Your task to perform on an android device: Search for logitech g910 on bestbuy.com, select the first entry, add it to the cart, then select checkout. Image 0: 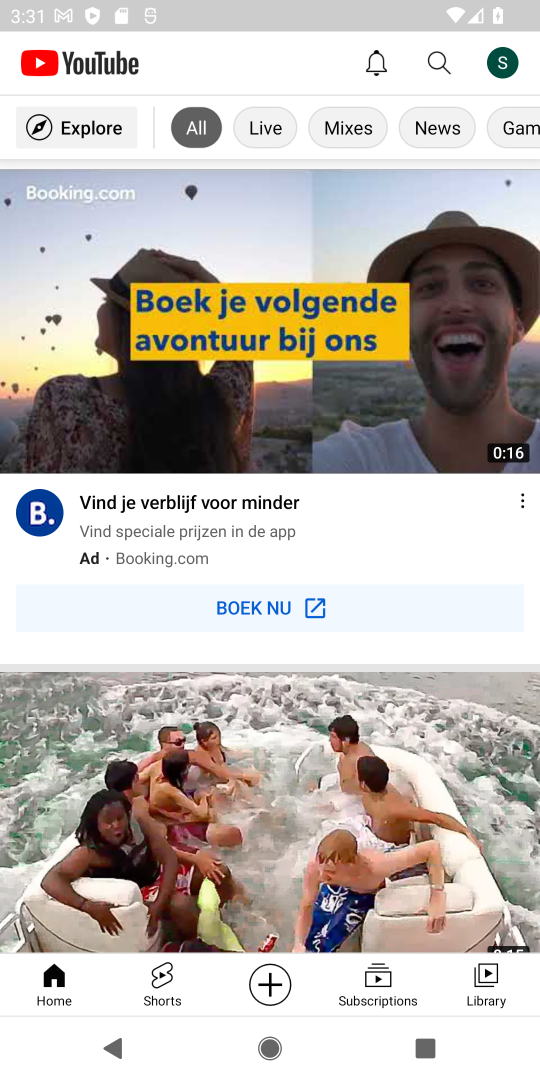
Step 0: press home button
Your task to perform on an android device: Search for logitech g910 on bestbuy.com, select the first entry, add it to the cart, then select checkout. Image 1: 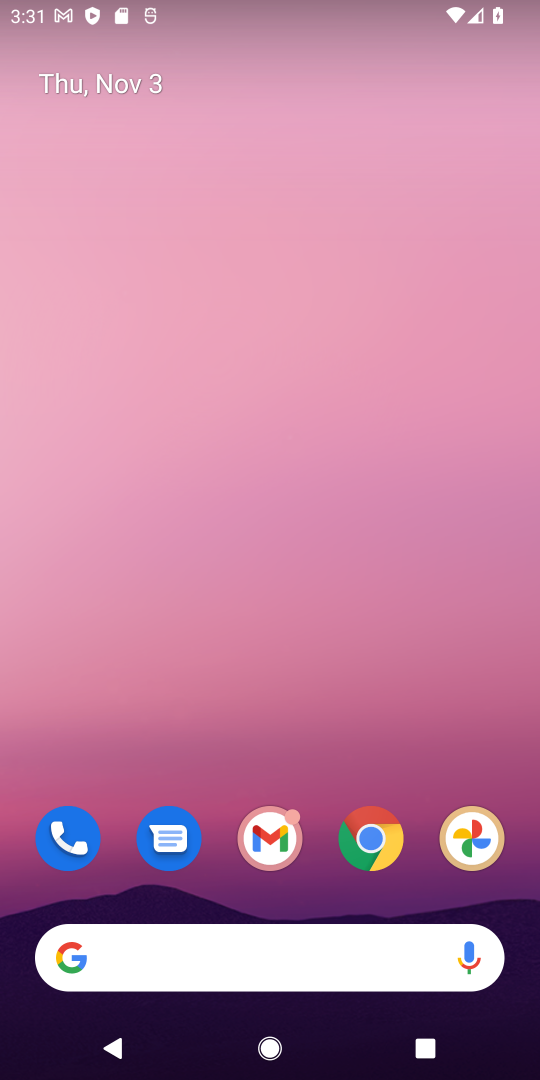
Step 1: drag from (316, 898) to (330, 72)
Your task to perform on an android device: Search for logitech g910 on bestbuy.com, select the first entry, add it to the cart, then select checkout. Image 2: 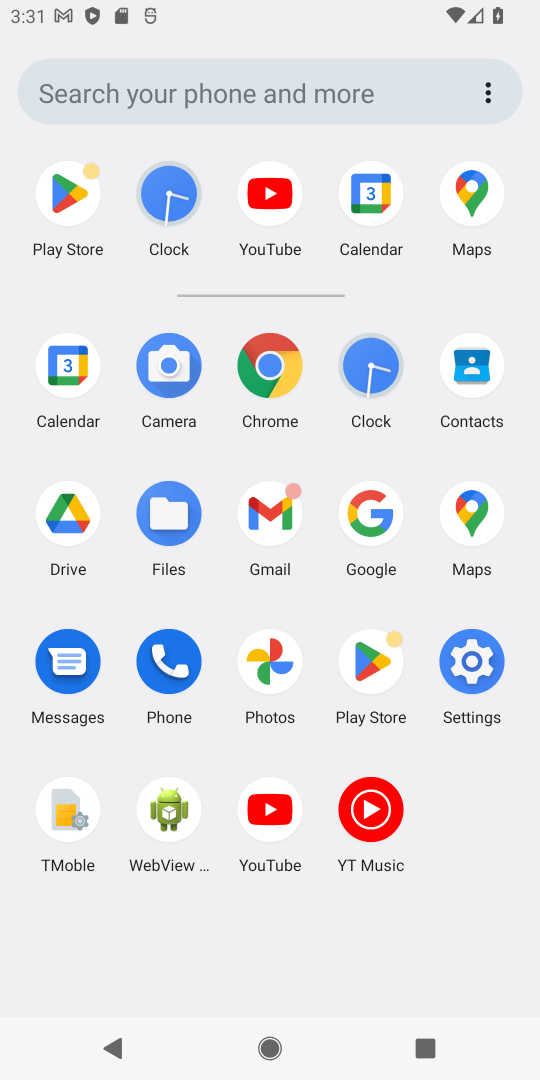
Step 2: click (278, 365)
Your task to perform on an android device: Search for logitech g910 on bestbuy.com, select the first entry, add it to the cart, then select checkout. Image 3: 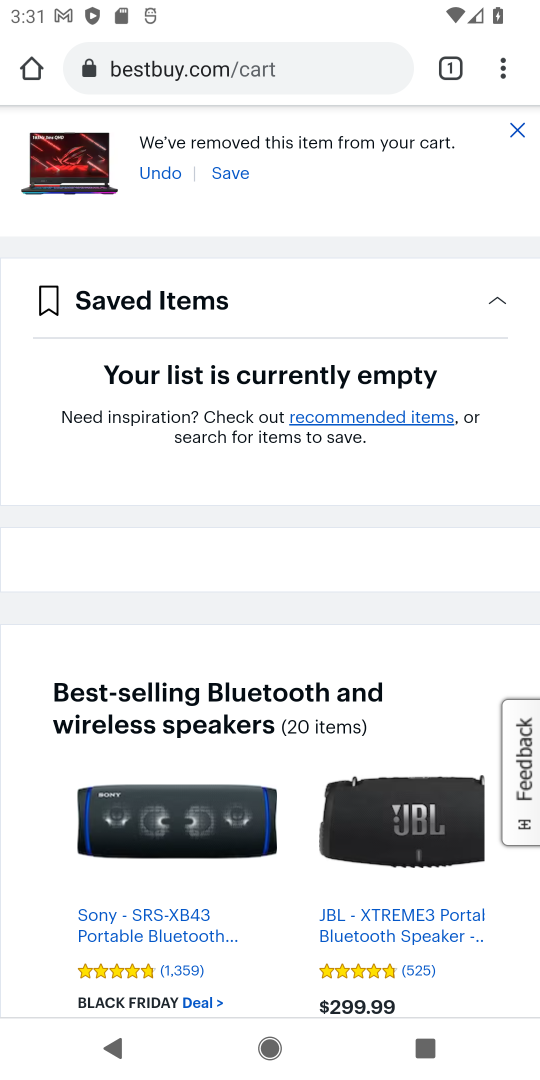
Step 3: click (327, 55)
Your task to perform on an android device: Search for logitech g910 on bestbuy.com, select the first entry, add it to the cart, then select checkout. Image 4: 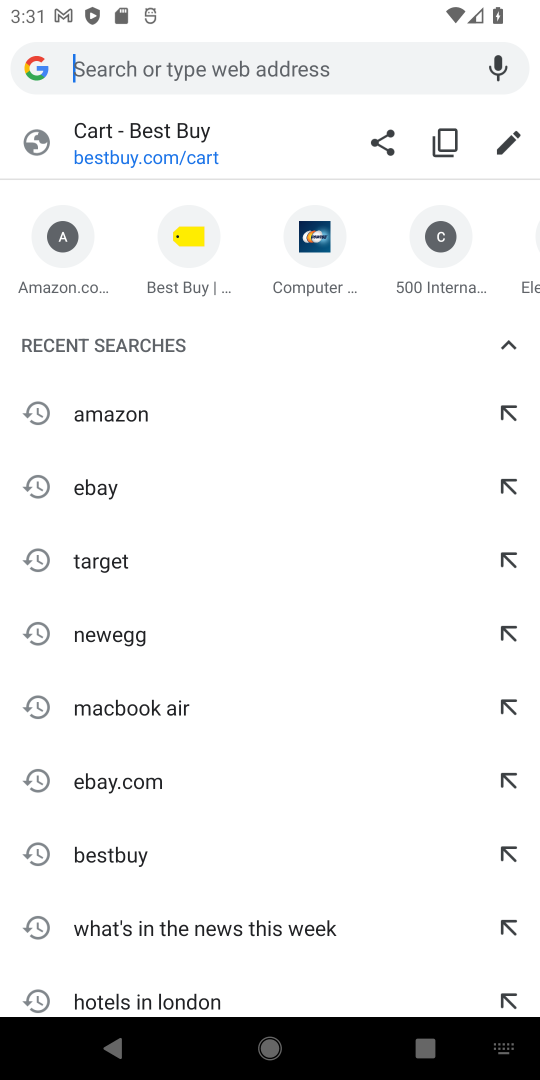
Step 4: type "bestbuy.com"
Your task to perform on an android device: Search for logitech g910 on bestbuy.com, select the first entry, add it to the cart, then select checkout. Image 5: 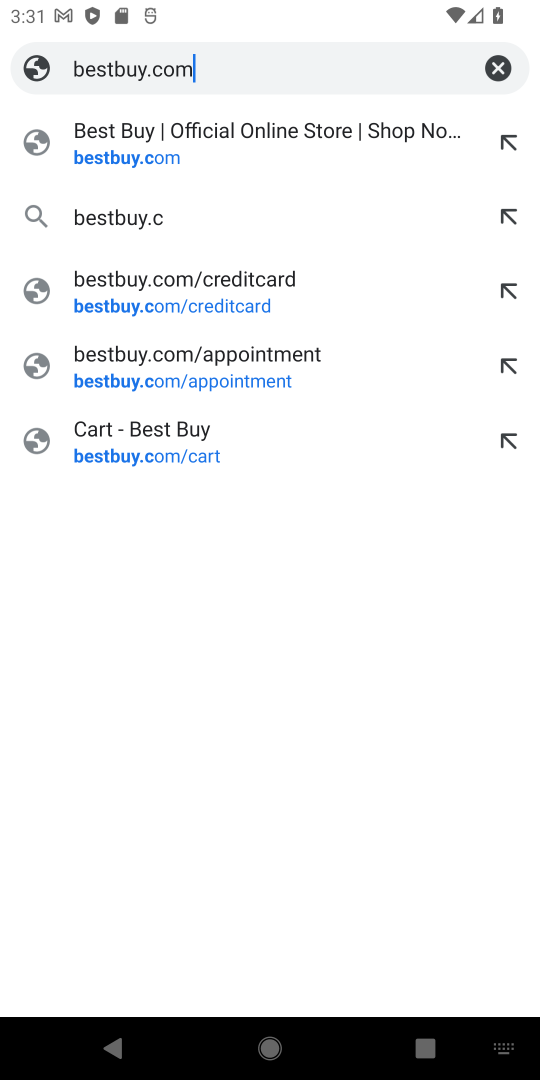
Step 5: press enter
Your task to perform on an android device: Search for logitech g910 on bestbuy.com, select the first entry, add it to the cart, then select checkout. Image 6: 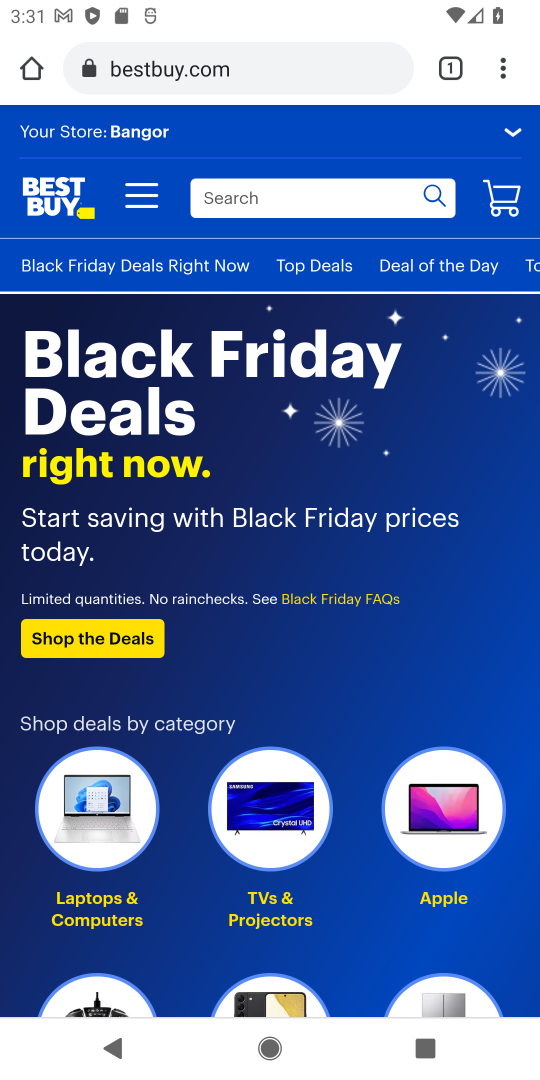
Step 6: click (341, 203)
Your task to perform on an android device: Search for logitech g910 on bestbuy.com, select the first entry, add it to the cart, then select checkout. Image 7: 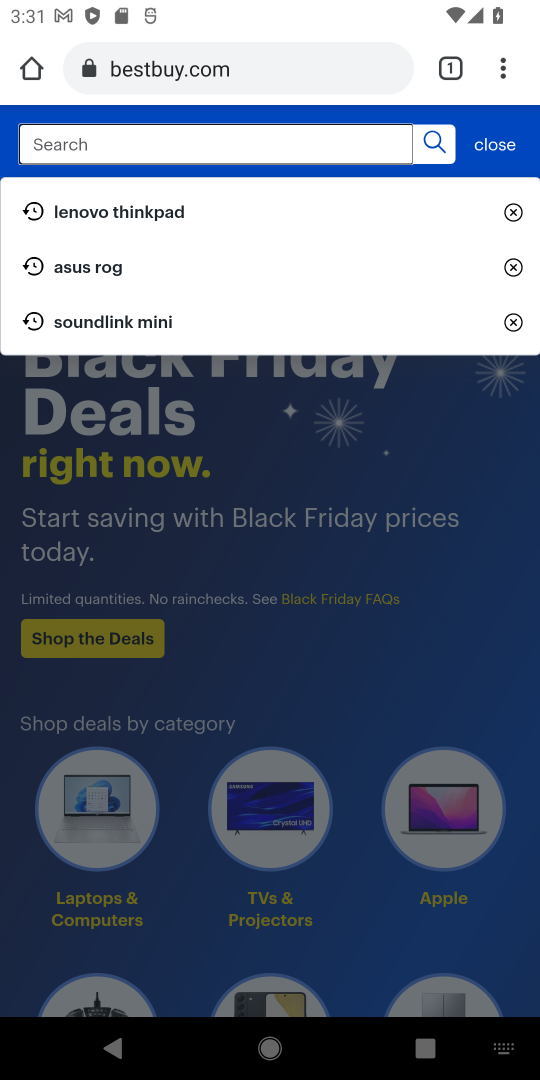
Step 7: type "logitech g910"
Your task to perform on an android device: Search for logitech g910 on bestbuy.com, select the first entry, add it to the cart, then select checkout. Image 8: 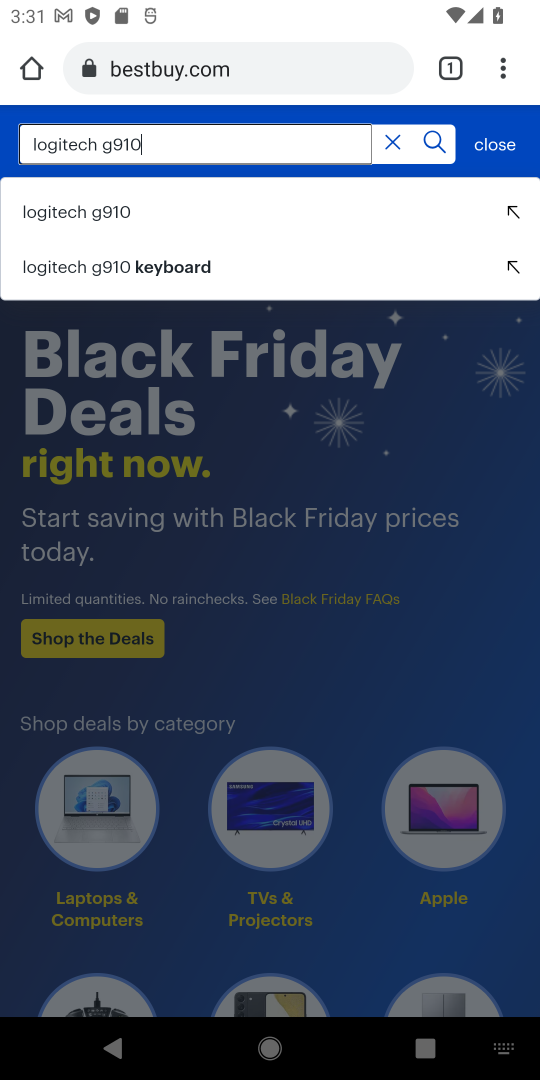
Step 8: press enter
Your task to perform on an android device: Search for logitech g910 on bestbuy.com, select the first entry, add it to the cart, then select checkout. Image 9: 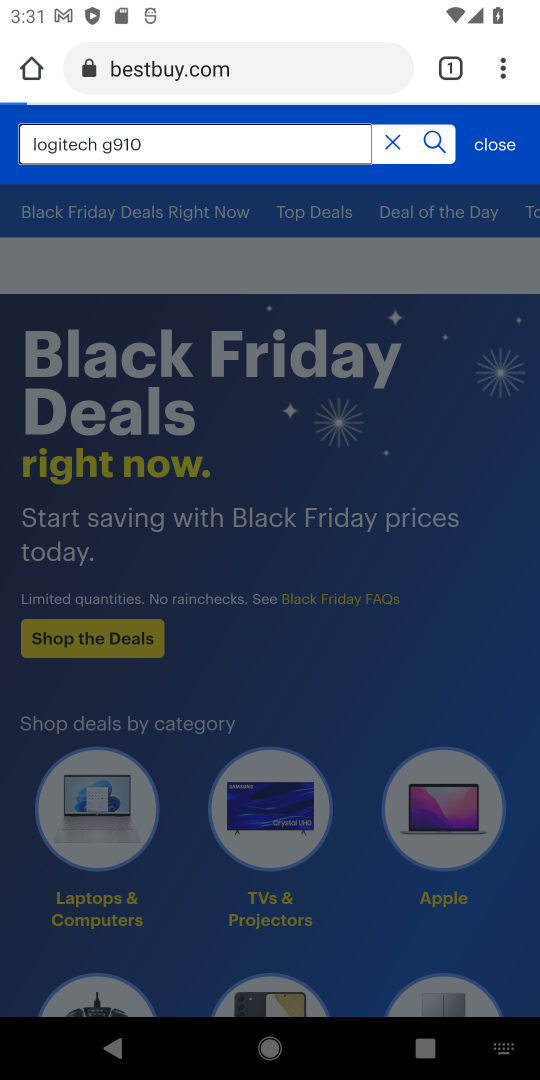
Step 9: press enter
Your task to perform on an android device: Search for logitech g910 on bestbuy.com, select the first entry, add it to the cart, then select checkout. Image 10: 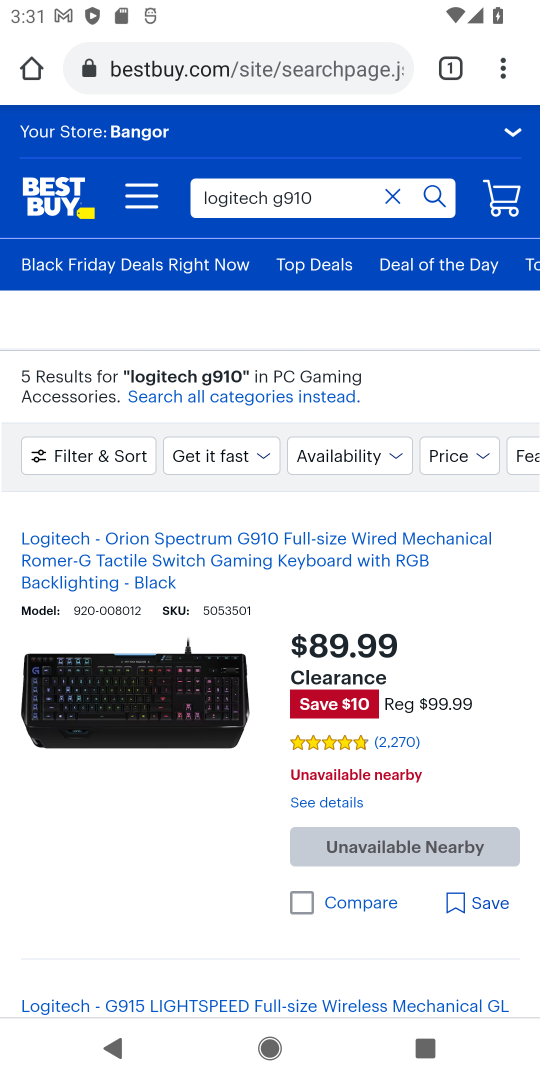
Step 10: drag from (344, 964) to (365, 611)
Your task to perform on an android device: Search for logitech g910 on bestbuy.com, select the first entry, add it to the cart, then select checkout. Image 11: 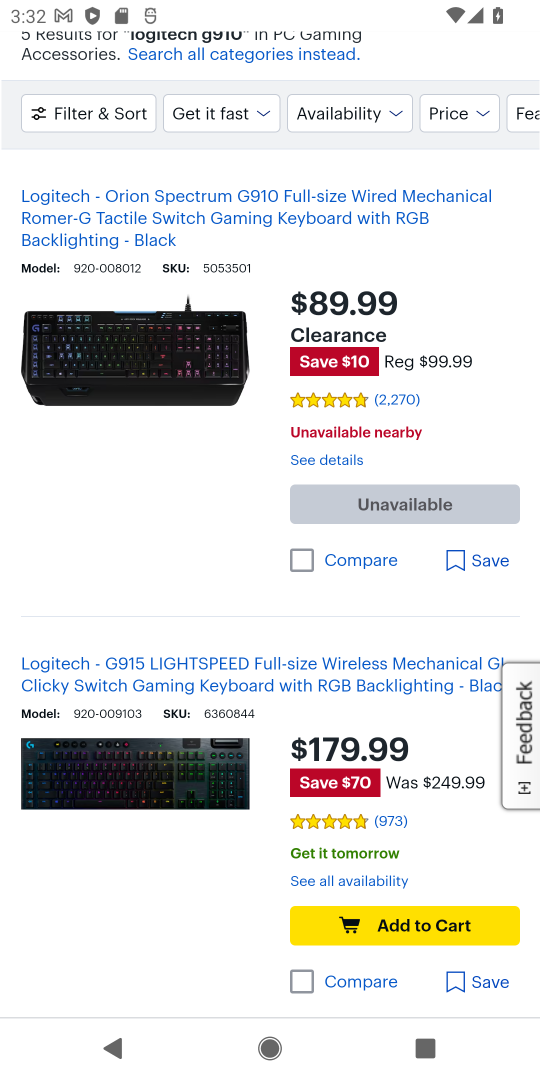
Step 11: drag from (134, 872) to (296, 355)
Your task to perform on an android device: Search for logitech g910 on bestbuy.com, select the first entry, add it to the cart, then select checkout. Image 12: 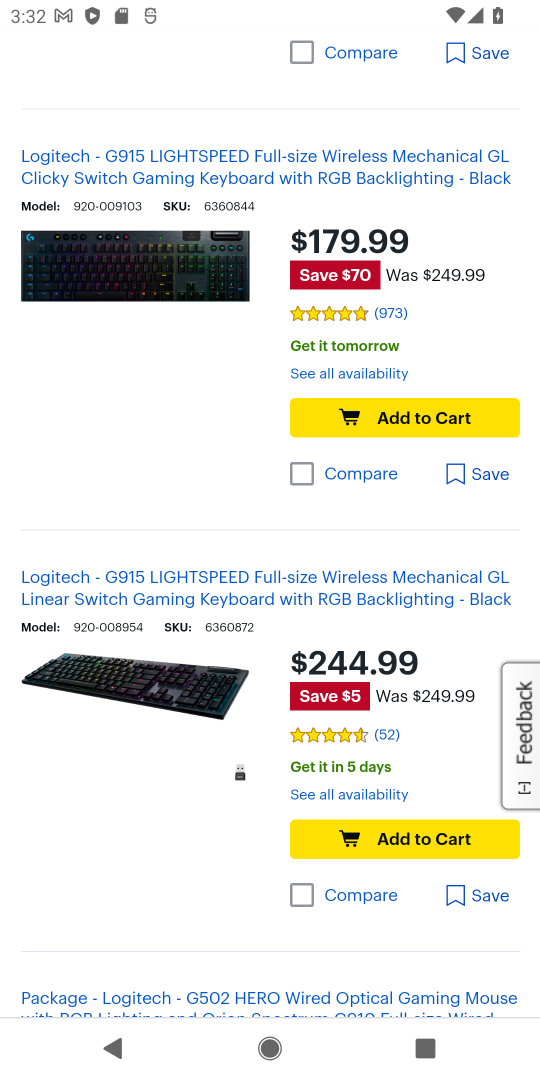
Step 12: drag from (208, 898) to (323, 277)
Your task to perform on an android device: Search for logitech g910 on bestbuy.com, select the first entry, add it to the cart, then select checkout. Image 13: 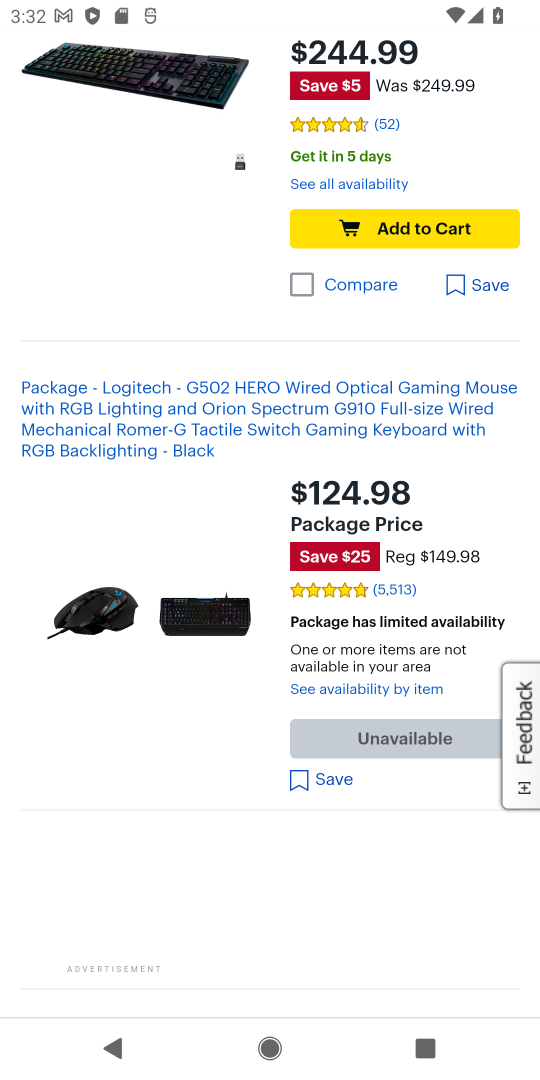
Step 13: drag from (186, 249) to (211, 980)
Your task to perform on an android device: Search for logitech g910 on bestbuy.com, select the first entry, add it to the cart, then select checkout. Image 14: 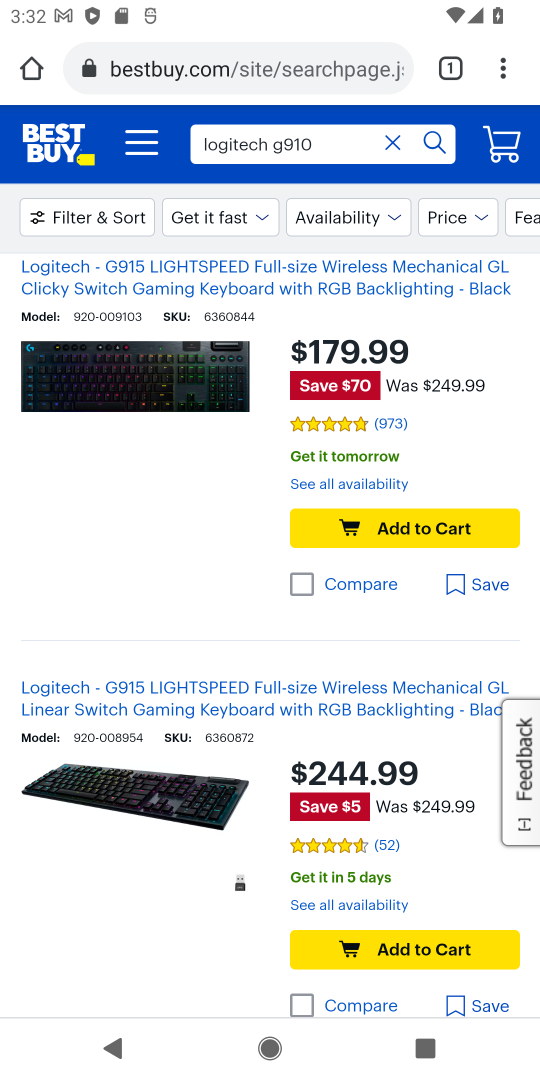
Step 14: drag from (175, 268) to (197, 960)
Your task to perform on an android device: Search for logitech g910 on bestbuy.com, select the first entry, add it to the cart, then select checkout. Image 15: 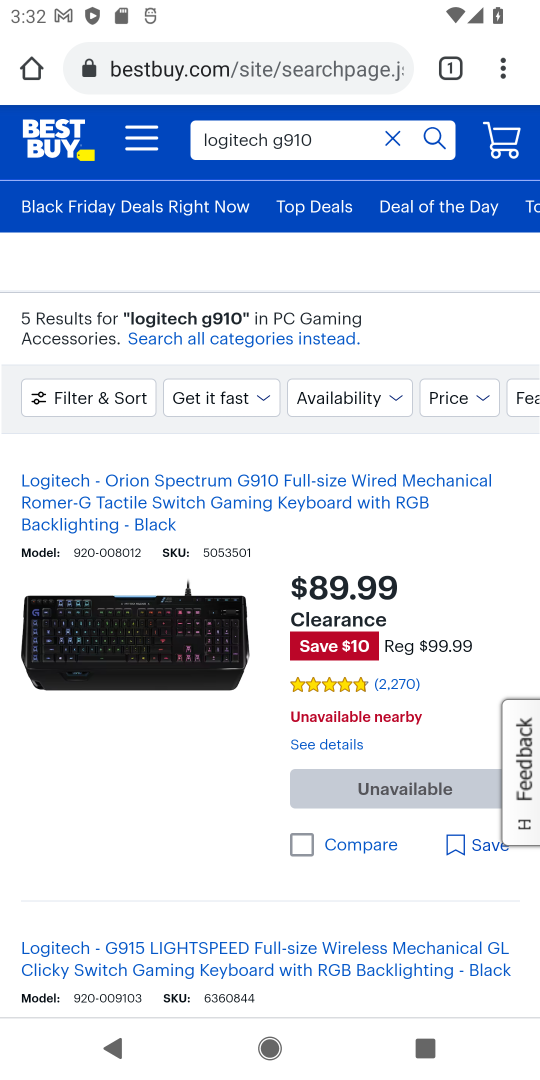
Step 15: click (198, 507)
Your task to perform on an android device: Search for logitech g910 on bestbuy.com, select the first entry, add it to the cart, then select checkout. Image 16: 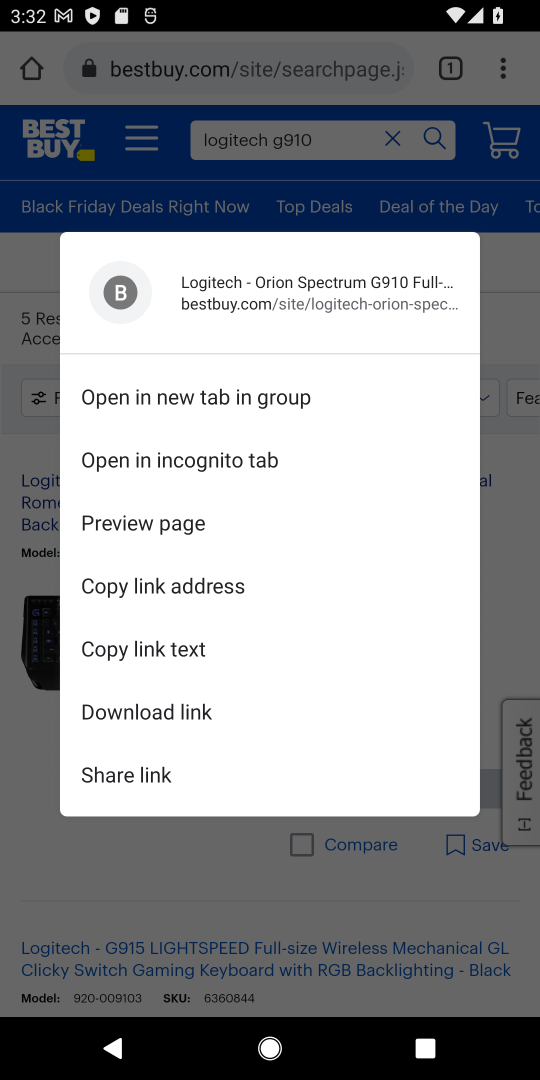
Step 16: click (18, 514)
Your task to perform on an android device: Search for logitech g910 on bestbuy.com, select the first entry, add it to the cart, then select checkout. Image 17: 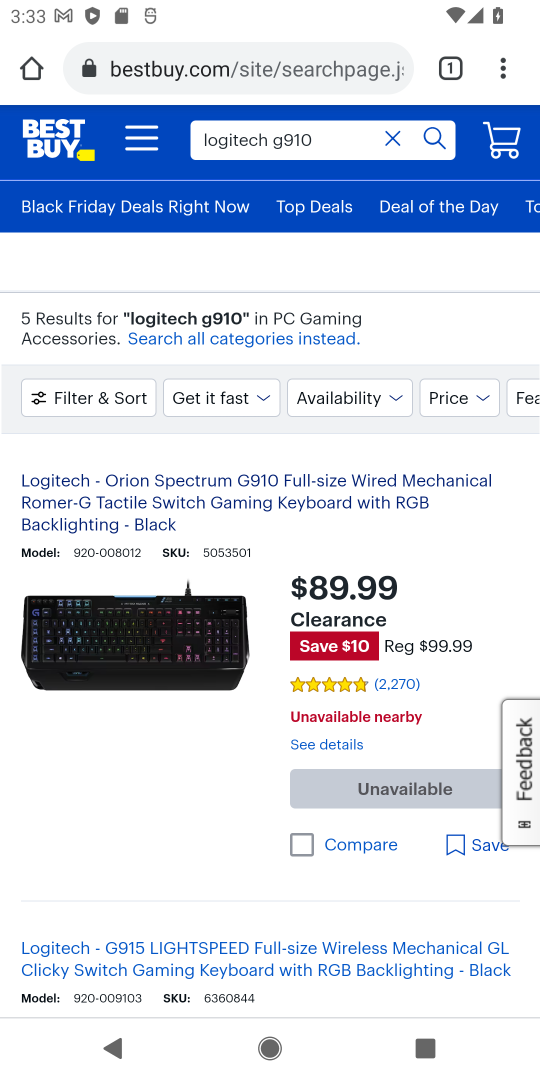
Step 17: drag from (289, 619) to (318, 300)
Your task to perform on an android device: Search for logitech g910 on bestbuy.com, select the first entry, add it to the cart, then select checkout. Image 18: 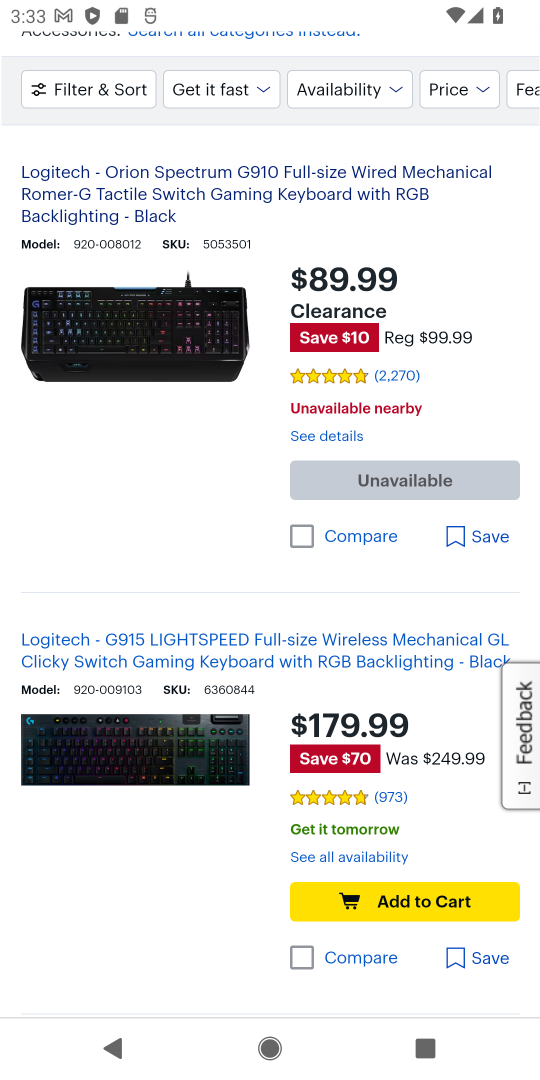
Step 18: click (367, 177)
Your task to perform on an android device: Search for logitech g910 on bestbuy.com, select the first entry, add it to the cart, then select checkout. Image 19: 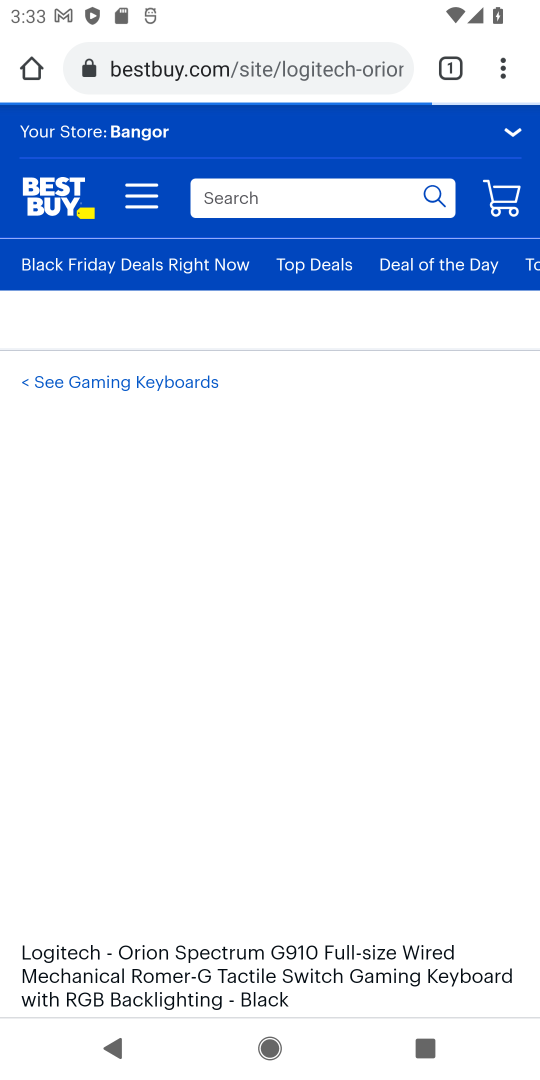
Step 19: task complete